Your task to perform on an android device: check storage Image 0: 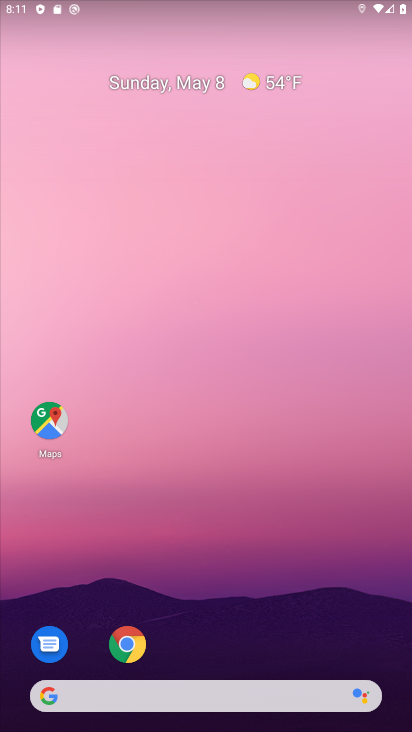
Step 0: drag from (162, 582) to (261, 191)
Your task to perform on an android device: check storage Image 1: 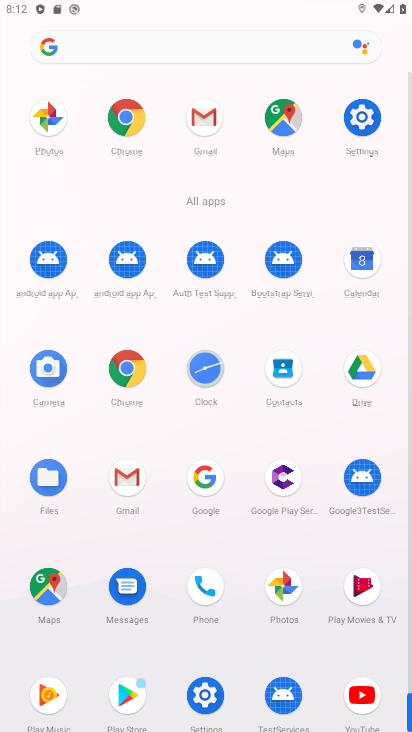
Step 1: drag from (245, 668) to (250, 185)
Your task to perform on an android device: check storage Image 2: 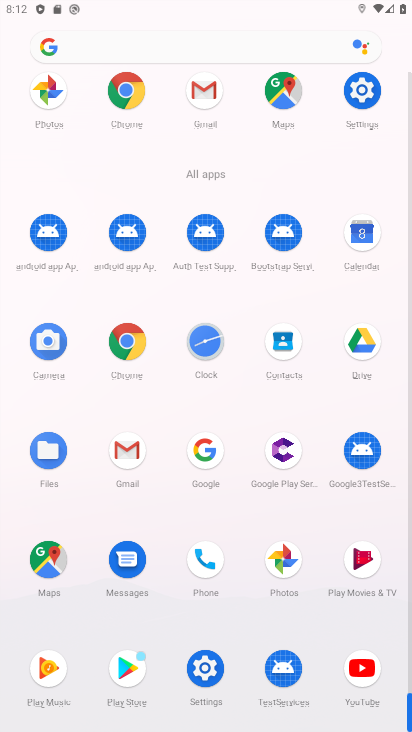
Step 2: click (202, 674)
Your task to perform on an android device: check storage Image 3: 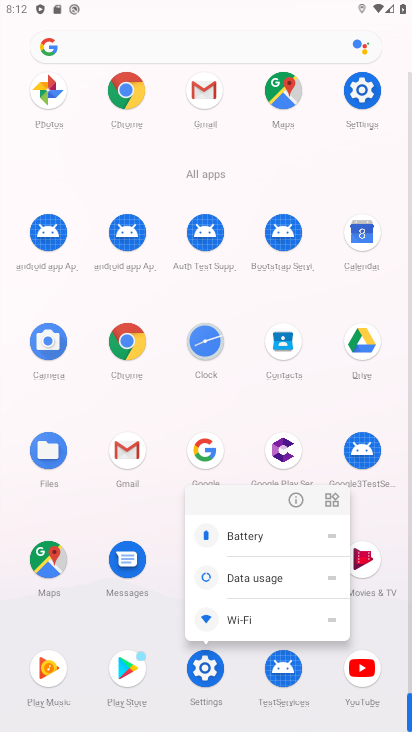
Step 3: click (293, 497)
Your task to perform on an android device: check storage Image 4: 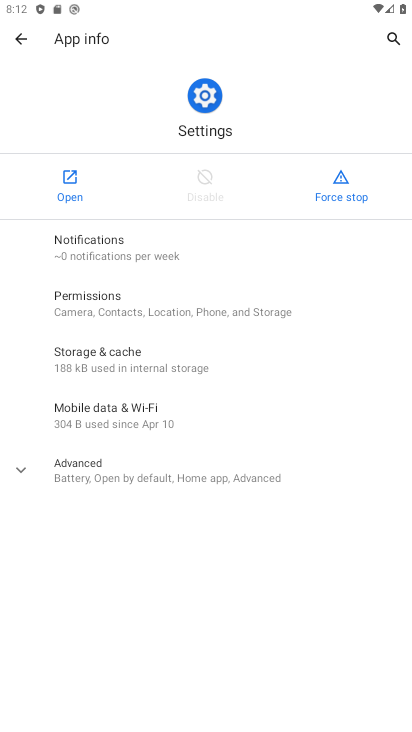
Step 4: click (85, 183)
Your task to perform on an android device: check storage Image 5: 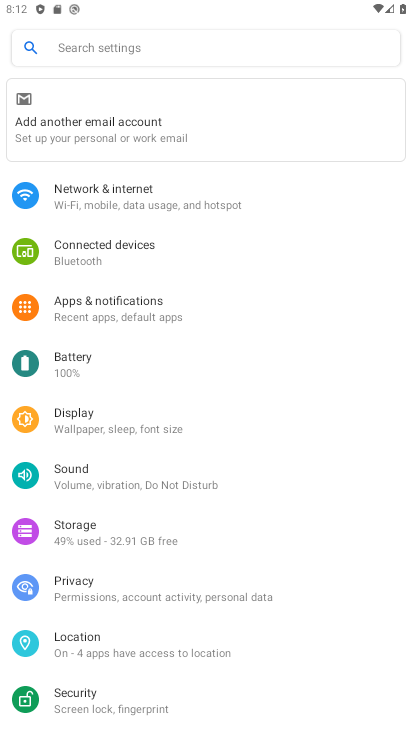
Step 5: click (129, 543)
Your task to perform on an android device: check storage Image 6: 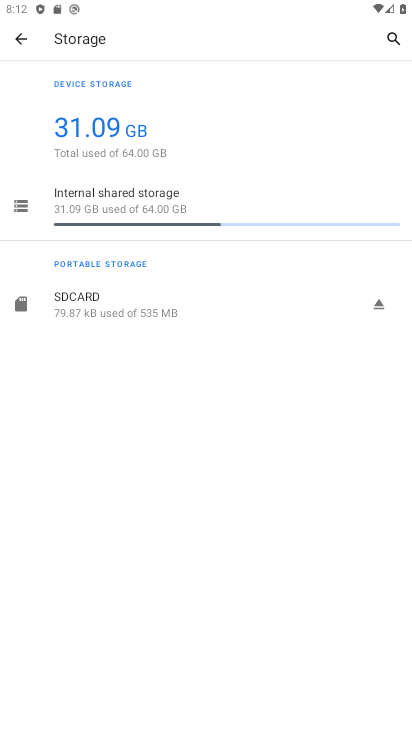
Step 6: click (121, 112)
Your task to perform on an android device: check storage Image 7: 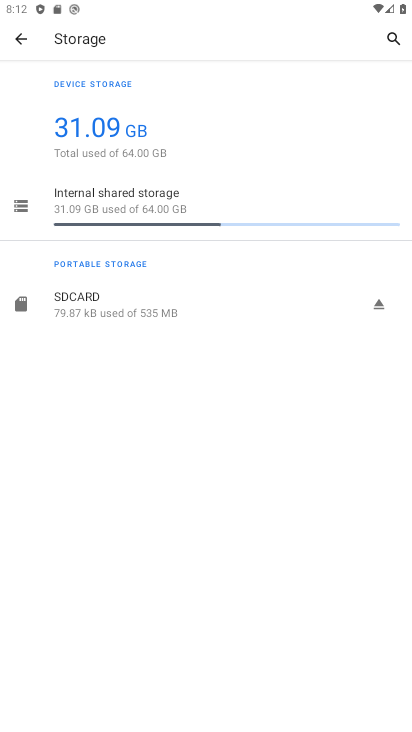
Step 7: click (206, 169)
Your task to perform on an android device: check storage Image 8: 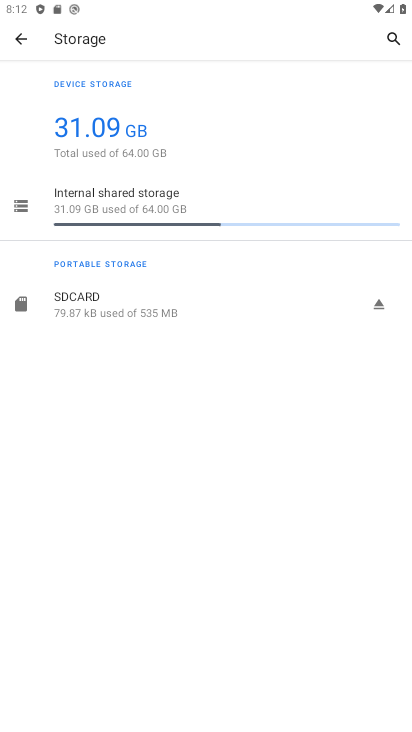
Step 8: click (203, 167)
Your task to perform on an android device: check storage Image 9: 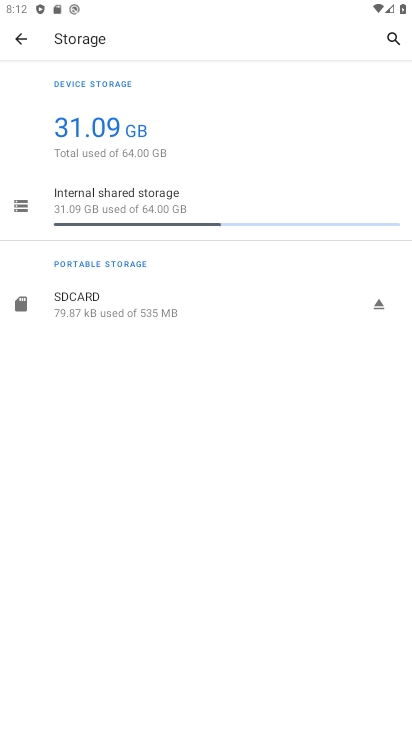
Step 9: task complete